Your task to perform on an android device: turn on javascript in the chrome app Image 0: 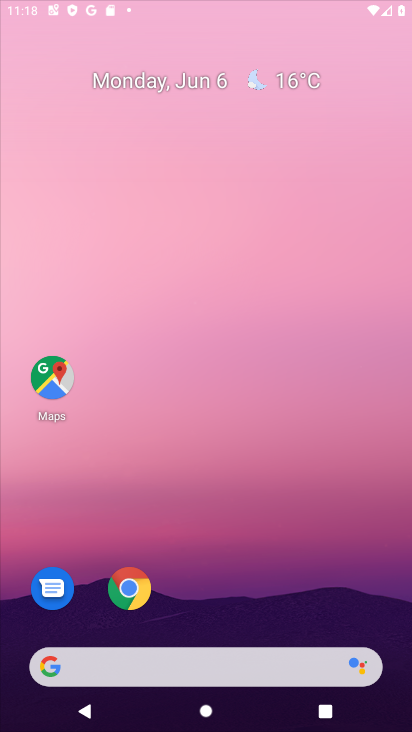
Step 0: click (286, 418)
Your task to perform on an android device: turn on javascript in the chrome app Image 1: 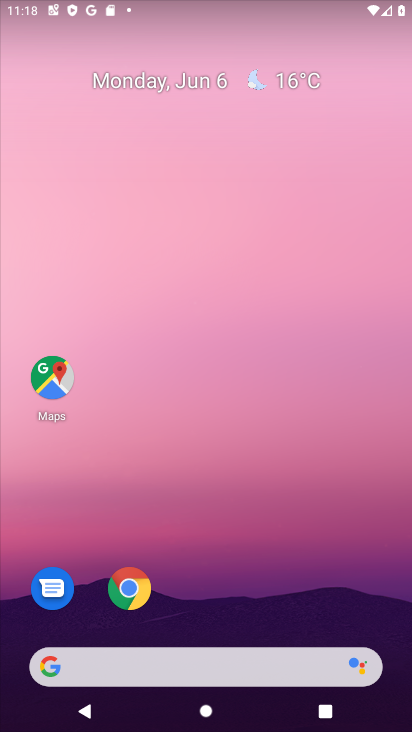
Step 1: click (126, 590)
Your task to perform on an android device: turn on javascript in the chrome app Image 2: 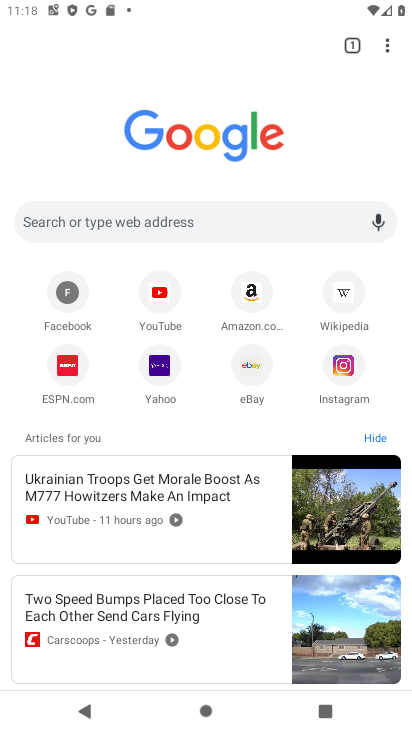
Step 2: click (383, 41)
Your task to perform on an android device: turn on javascript in the chrome app Image 3: 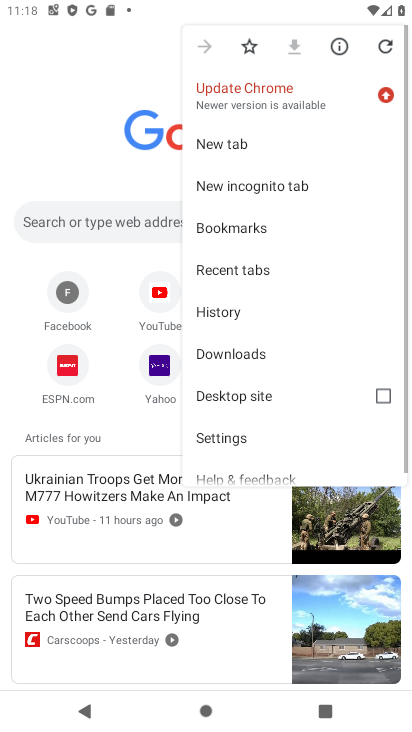
Step 3: click (383, 41)
Your task to perform on an android device: turn on javascript in the chrome app Image 4: 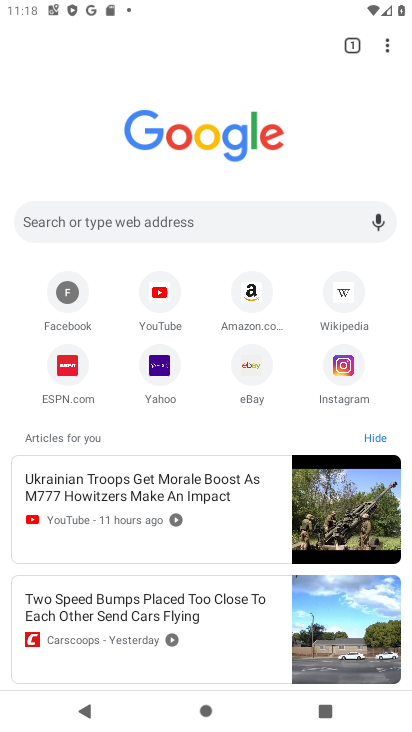
Step 4: click (373, 51)
Your task to perform on an android device: turn on javascript in the chrome app Image 5: 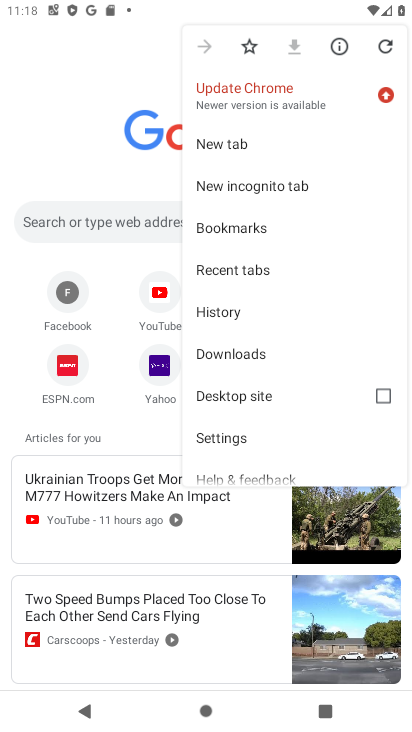
Step 5: click (223, 437)
Your task to perform on an android device: turn on javascript in the chrome app Image 6: 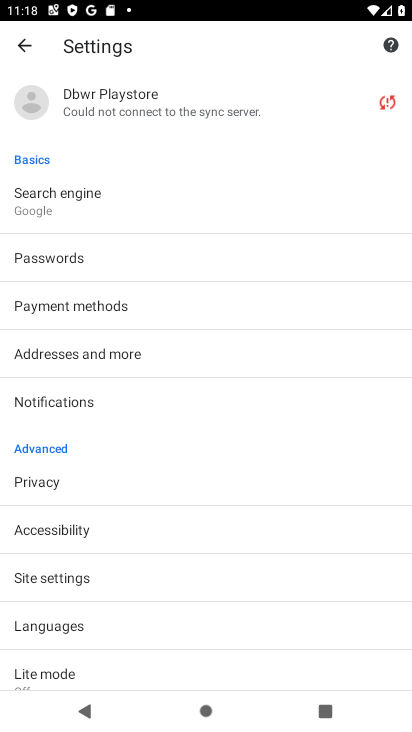
Step 6: click (79, 586)
Your task to perform on an android device: turn on javascript in the chrome app Image 7: 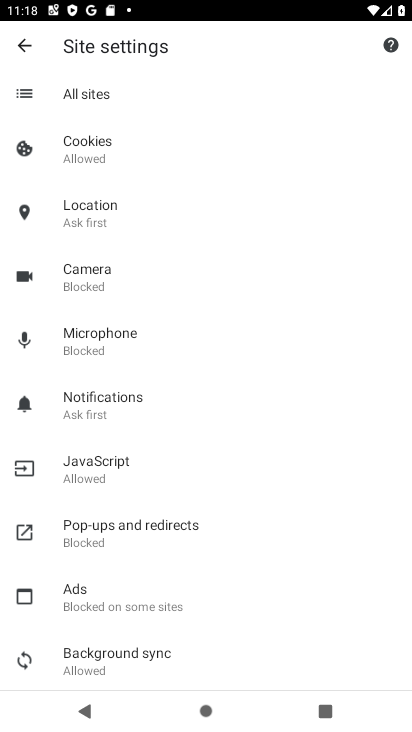
Step 7: click (118, 456)
Your task to perform on an android device: turn on javascript in the chrome app Image 8: 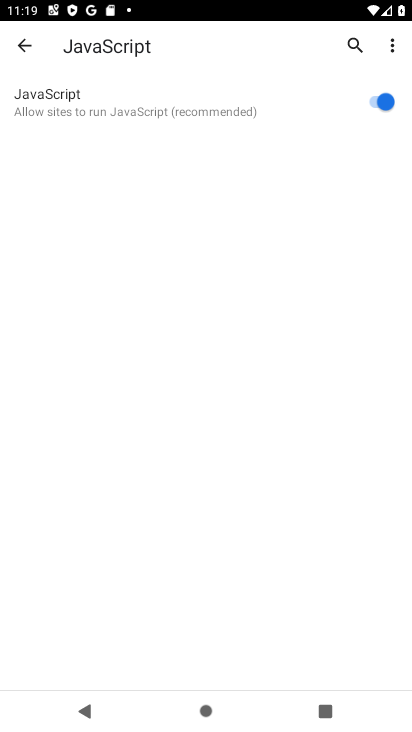
Step 8: task complete